Your task to perform on an android device: turn on the 12-hour format for clock Image 0: 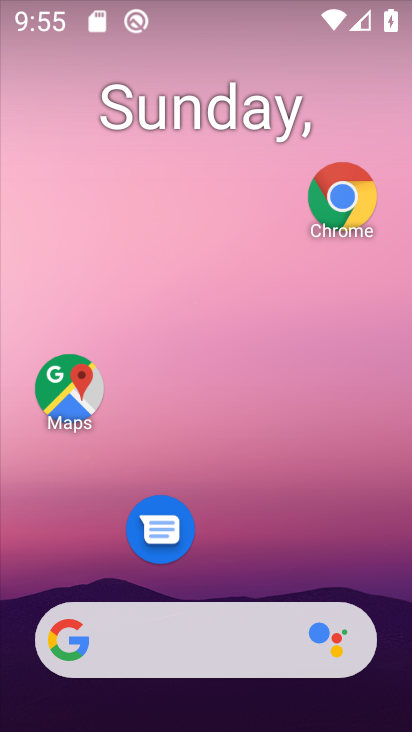
Step 0: drag from (151, 477) to (290, 85)
Your task to perform on an android device: turn on the 12-hour format for clock Image 1: 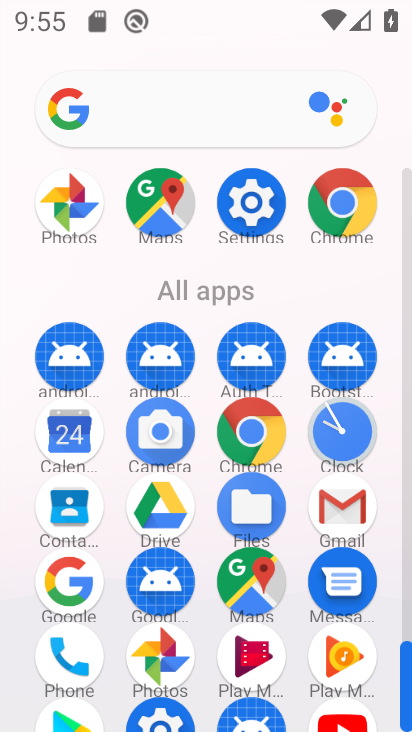
Step 1: click (370, 423)
Your task to perform on an android device: turn on the 12-hour format for clock Image 2: 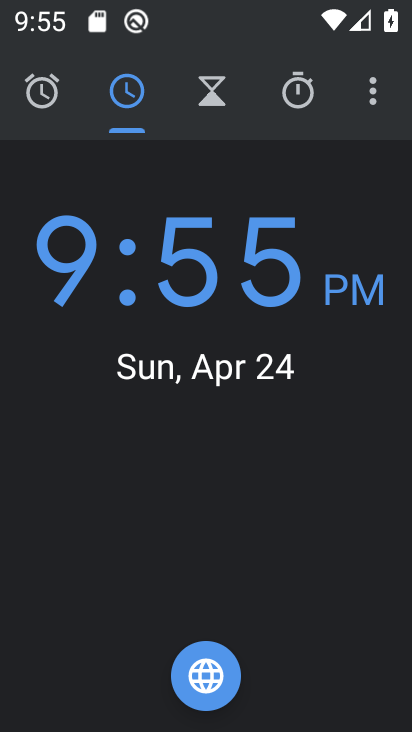
Step 2: click (370, 91)
Your task to perform on an android device: turn on the 12-hour format for clock Image 3: 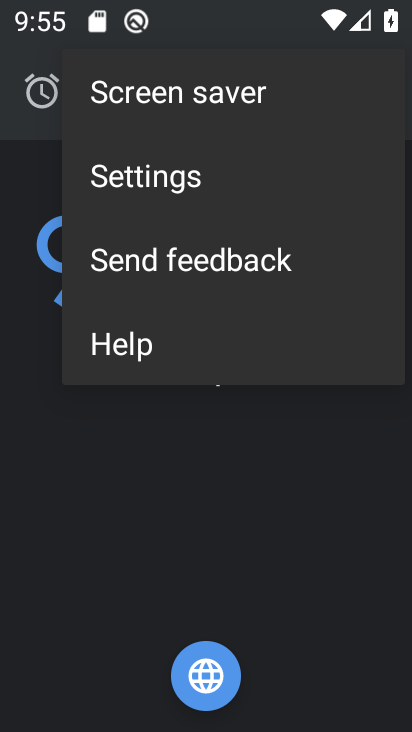
Step 3: click (290, 174)
Your task to perform on an android device: turn on the 12-hour format for clock Image 4: 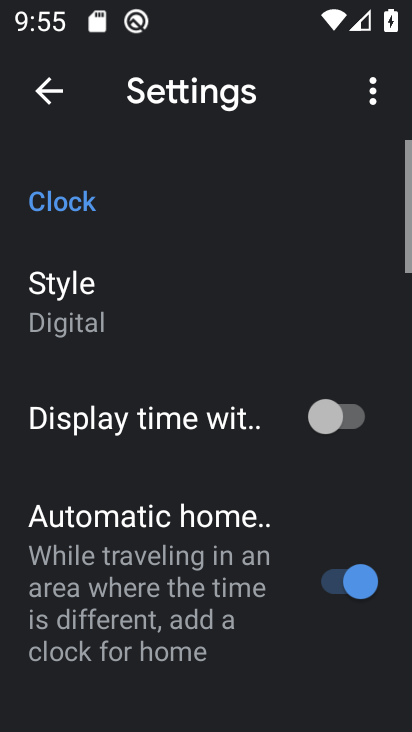
Step 4: drag from (247, 615) to (334, 151)
Your task to perform on an android device: turn on the 12-hour format for clock Image 5: 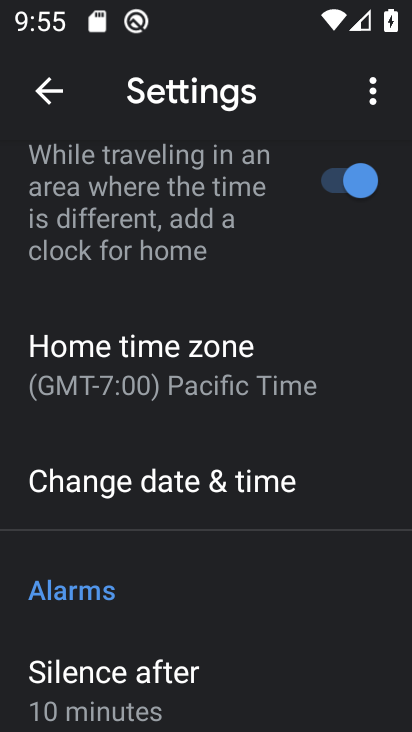
Step 5: click (303, 503)
Your task to perform on an android device: turn on the 12-hour format for clock Image 6: 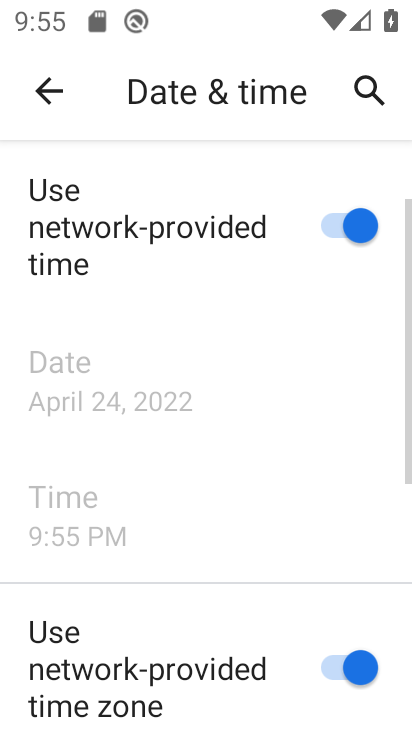
Step 6: task complete